Your task to perform on an android device: turn notification dots off Image 0: 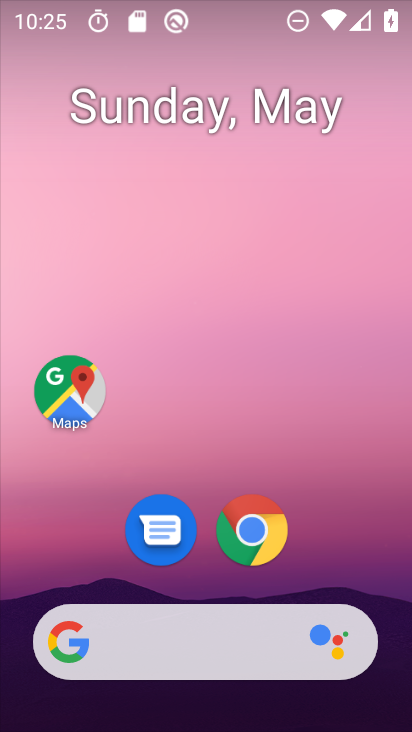
Step 0: drag from (245, 595) to (270, 92)
Your task to perform on an android device: turn notification dots off Image 1: 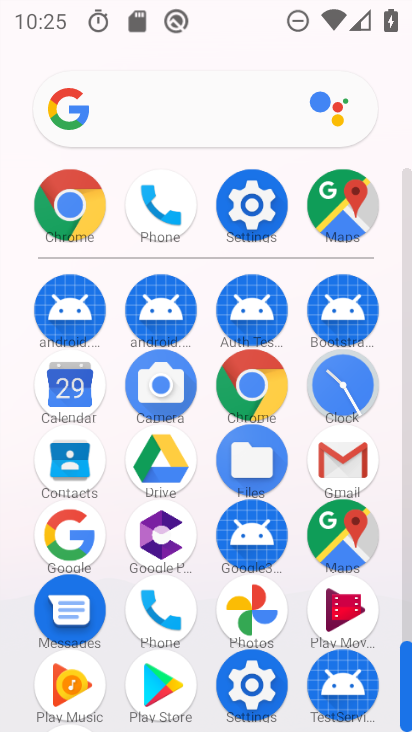
Step 1: click (252, 195)
Your task to perform on an android device: turn notification dots off Image 2: 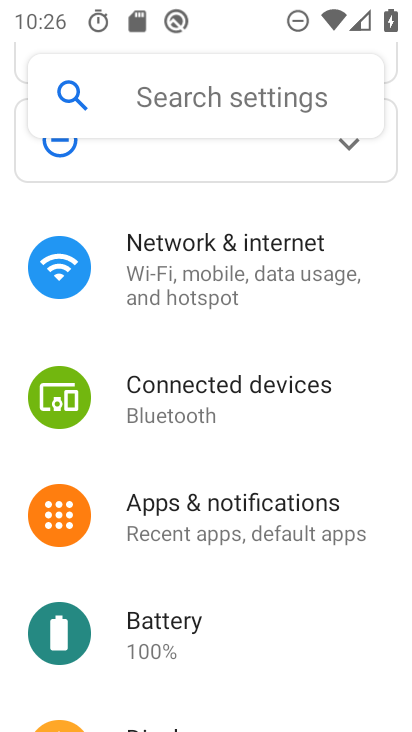
Step 2: click (177, 108)
Your task to perform on an android device: turn notification dots off Image 3: 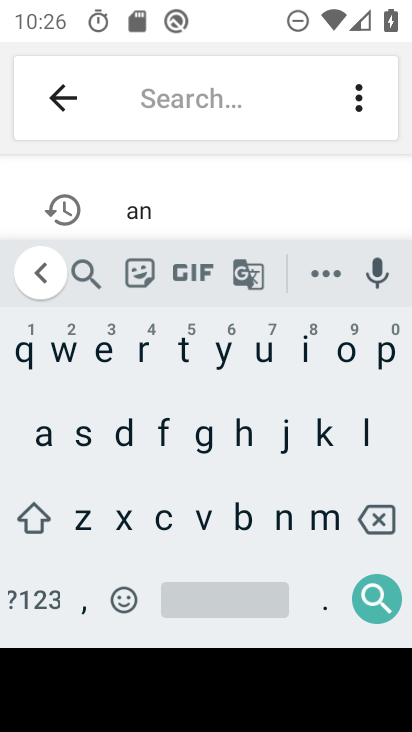
Step 3: click (120, 458)
Your task to perform on an android device: turn notification dots off Image 4: 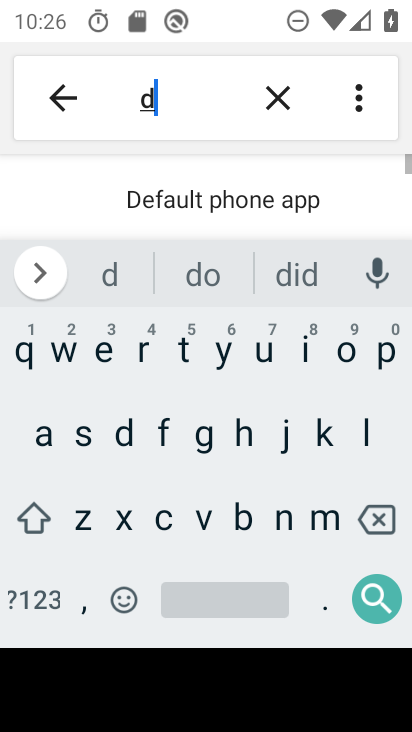
Step 4: click (334, 352)
Your task to perform on an android device: turn notification dots off Image 5: 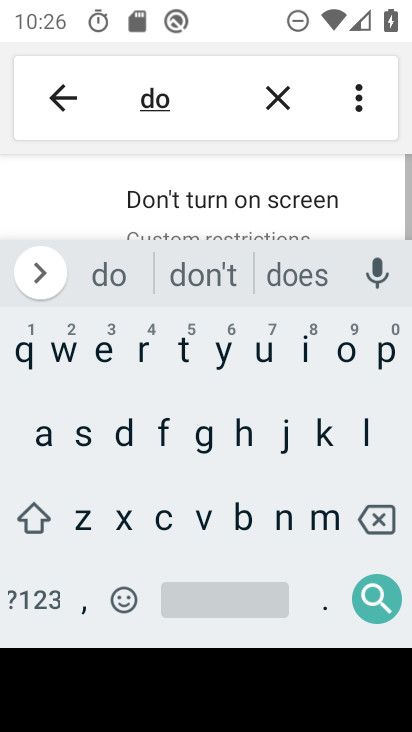
Step 5: click (178, 365)
Your task to perform on an android device: turn notification dots off Image 6: 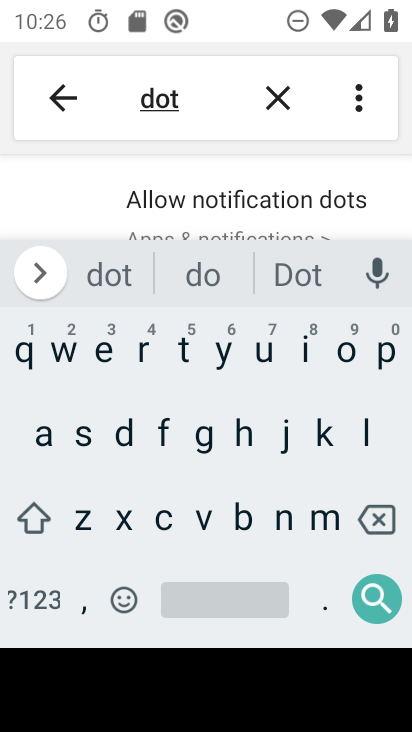
Step 6: click (254, 187)
Your task to perform on an android device: turn notification dots off Image 7: 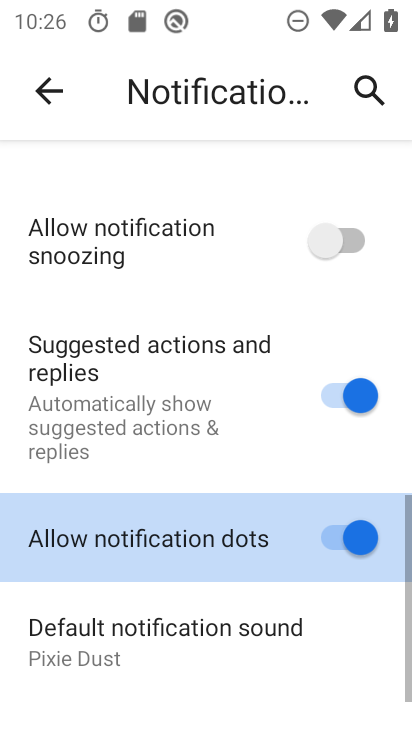
Step 7: click (323, 523)
Your task to perform on an android device: turn notification dots off Image 8: 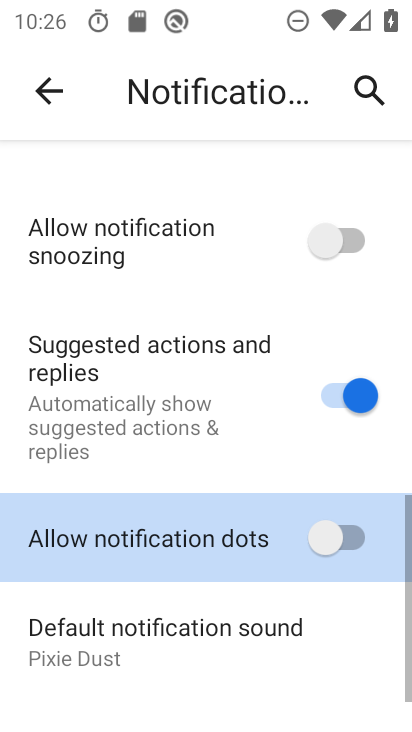
Step 8: task complete